Your task to perform on an android device: Toggle the flashlight Image 0: 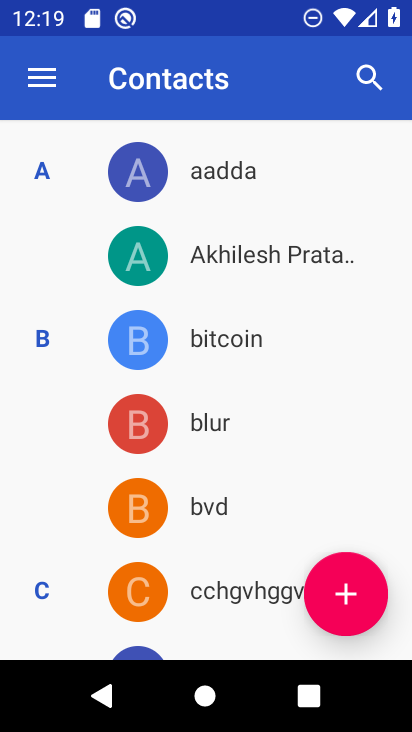
Step 0: press back button
Your task to perform on an android device: Toggle the flashlight Image 1: 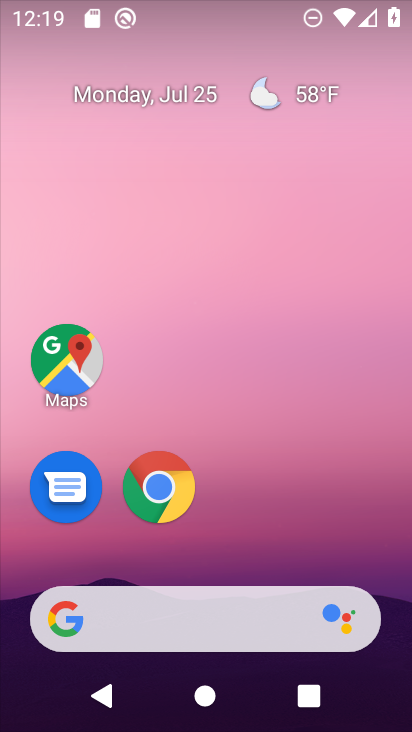
Step 1: drag from (275, 532) to (355, 0)
Your task to perform on an android device: Toggle the flashlight Image 2: 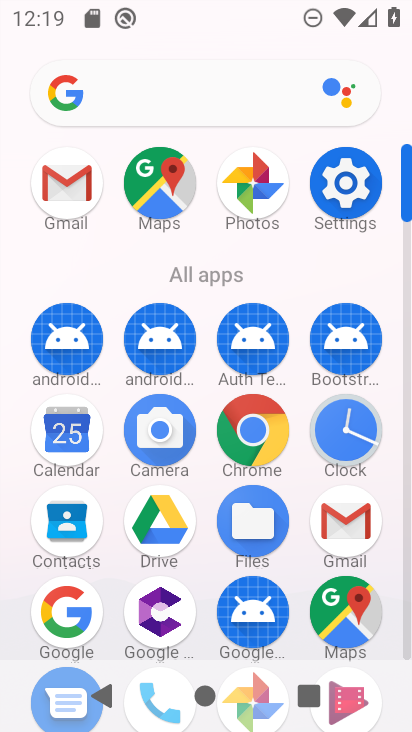
Step 2: click (336, 187)
Your task to perform on an android device: Toggle the flashlight Image 3: 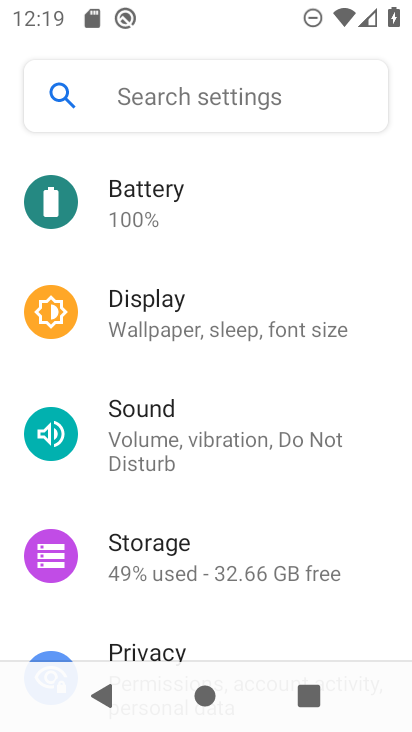
Step 3: click (167, 92)
Your task to perform on an android device: Toggle the flashlight Image 4: 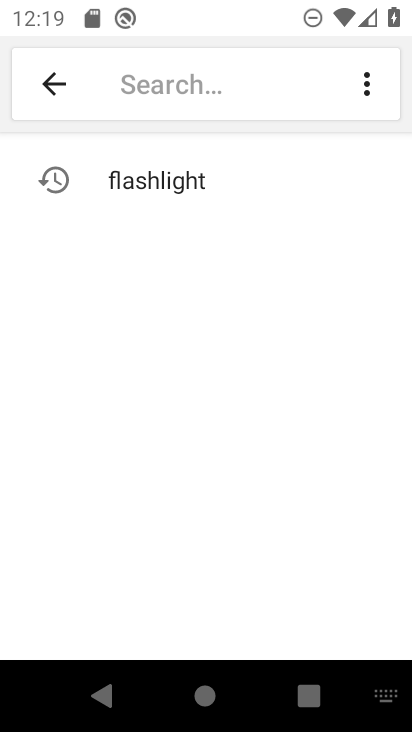
Step 4: type "flashlight"
Your task to perform on an android device: Toggle the flashlight Image 5: 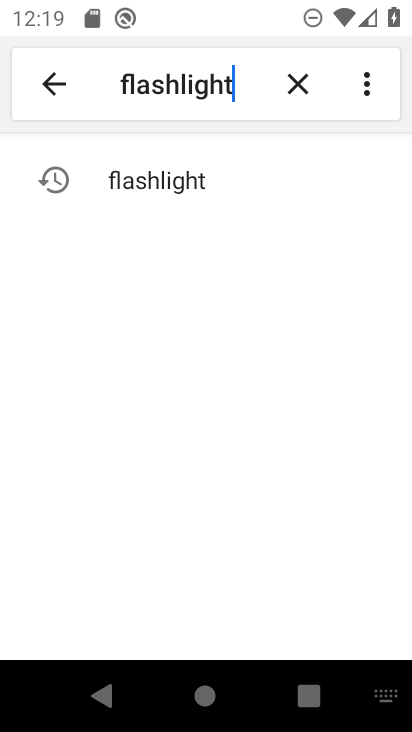
Step 5: click (184, 201)
Your task to perform on an android device: Toggle the flashlight Image 6: 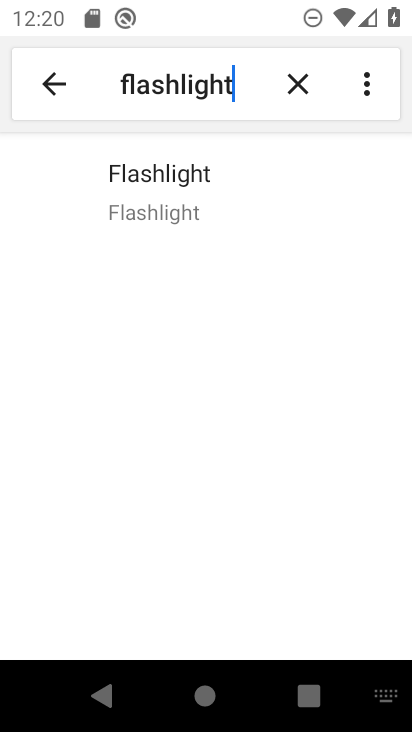
Step 6: task complete